Your task to perform on an android device: Go to Amazon Image 0: 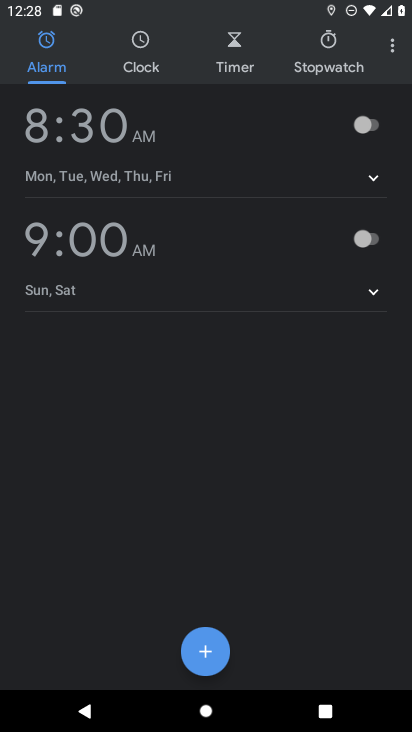
Step 0: press home button
Your task to perform on an android device: Go to Amazon Image 1: 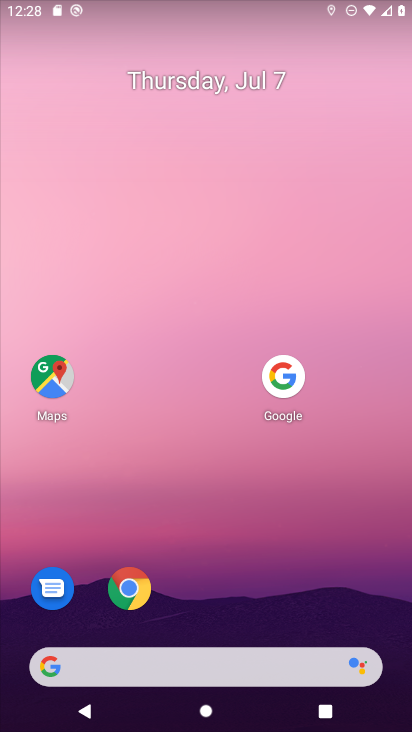
Step 1: click (130, 575)
Your task to perform on an android device: Go to Amazon Image 2: 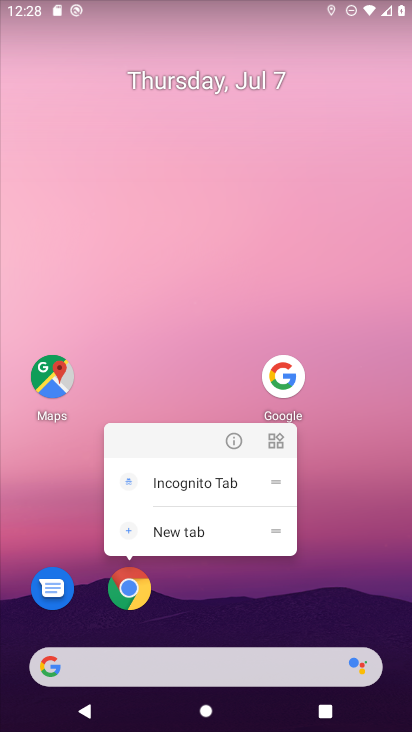
Step 2: click (130, 575)
Your task to perform on an android device: Go to Amazon Image 3: 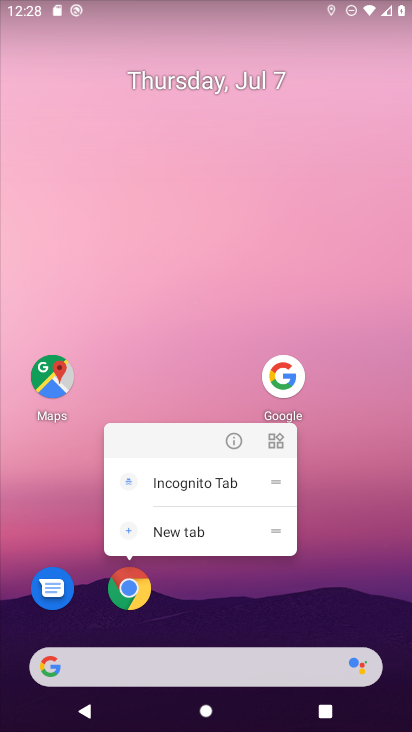
Step 3: click (134, 570)
Your task to perform on an android device: Go to Amazon Image 4: 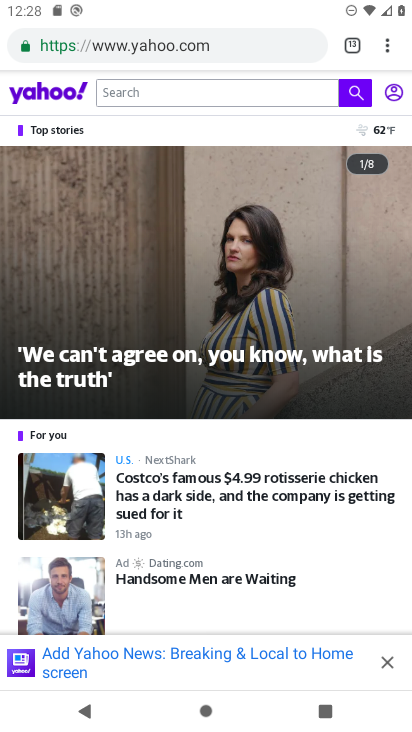
Step 4: drag from (390, 42) to (252, 95)
Your task to perform on an android device: Go to Amazon Image 5: 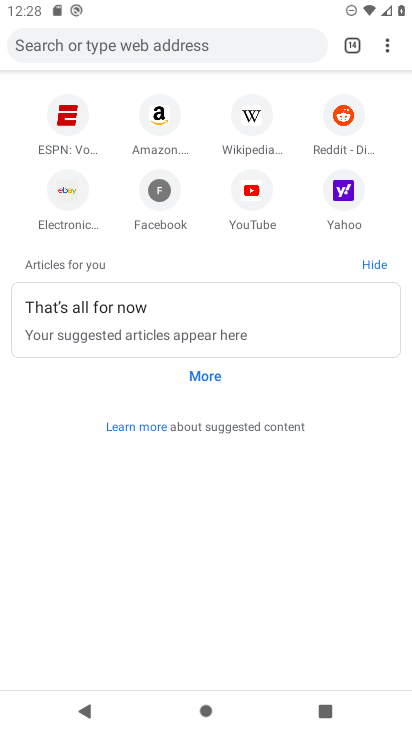
Step 5: click (153, 114)
Your task to perform on an android device: Go to Amazon Image 6: 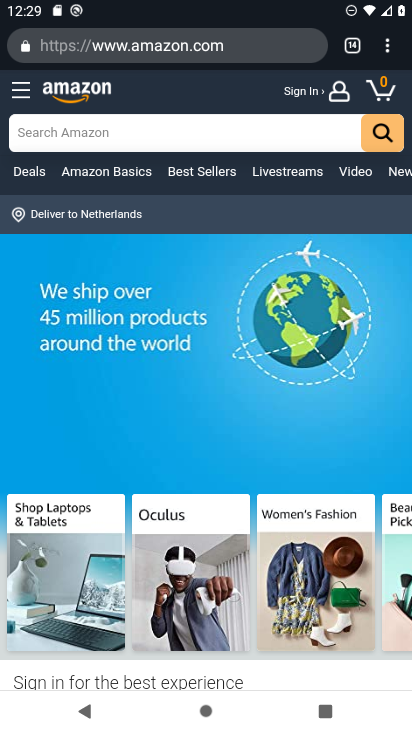
Step 6: task complete